Your task to perform on an android device: Go to Android settings Image 0: 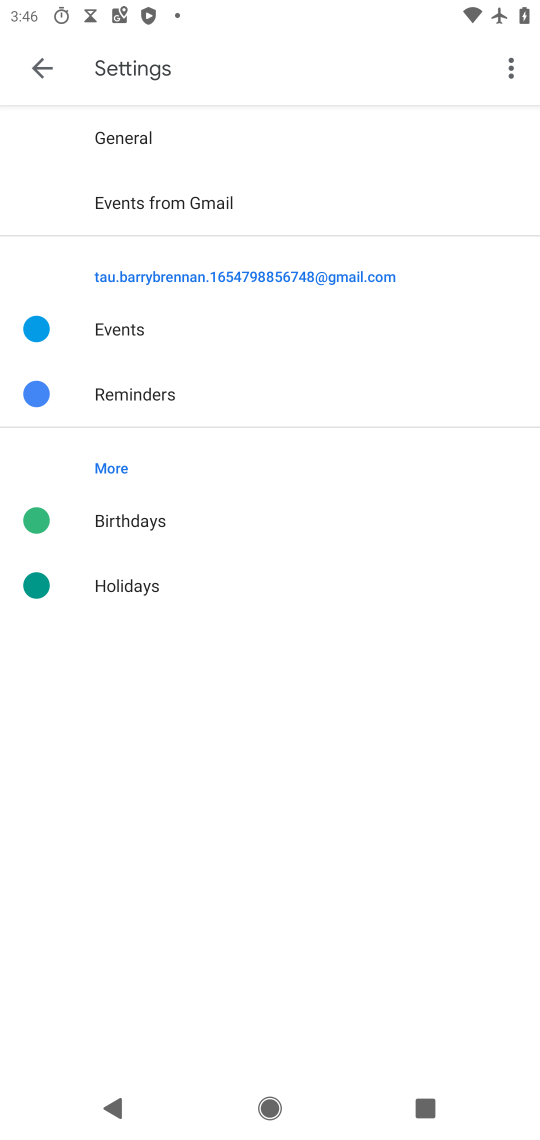
Step 0: press home button
Your task to perform on an android device: Go to Android settings Image 1: 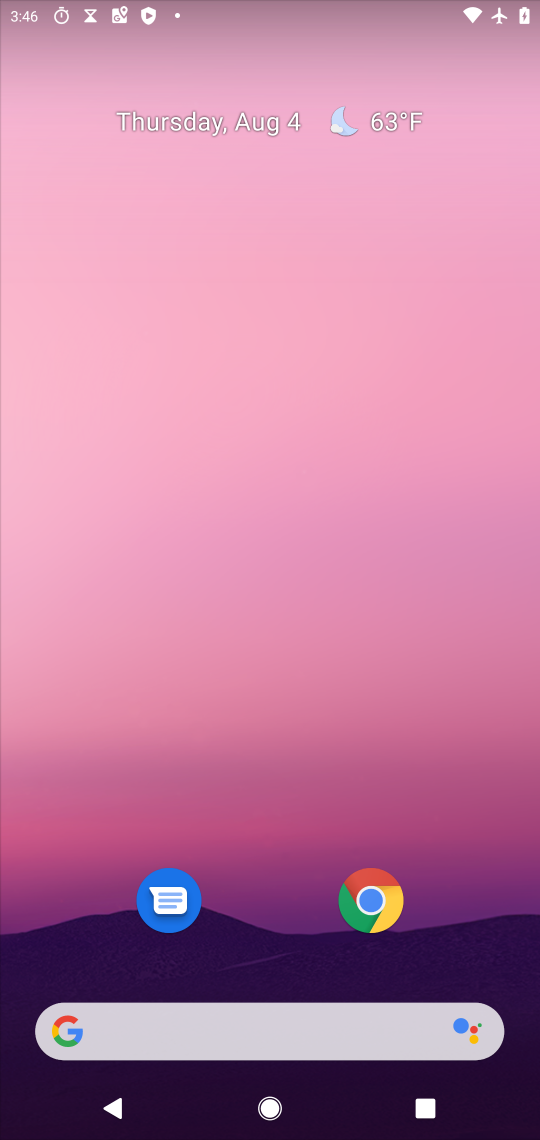
Step 1: drag from (484, 925) to (289, 45)
Your task to perform on an android device: Go to Android settings Image 2: 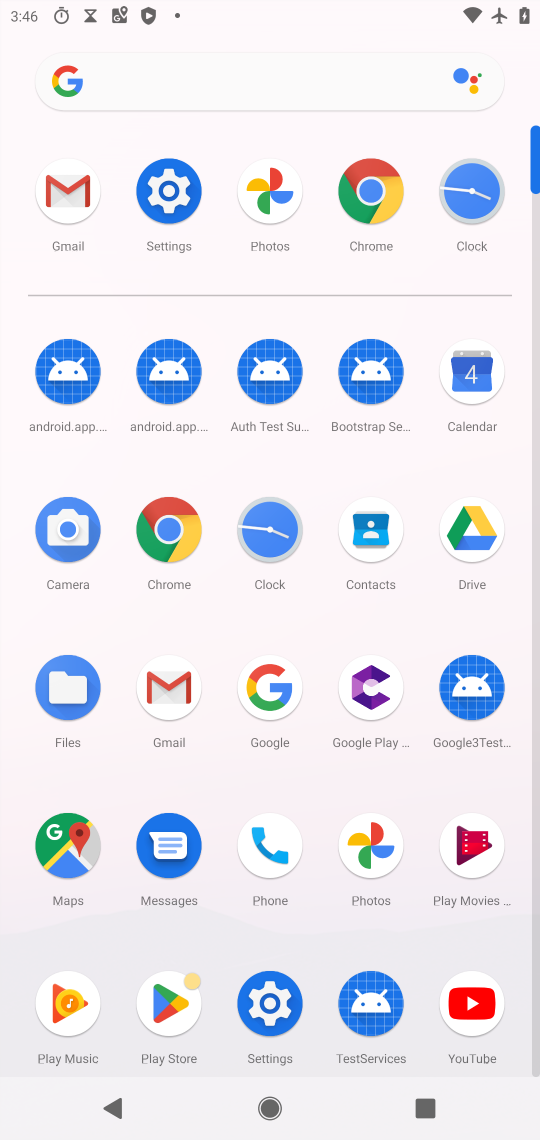
Step 2: click (175, 244)
Your task to perform on an android device: Go to Android settings Image 3: 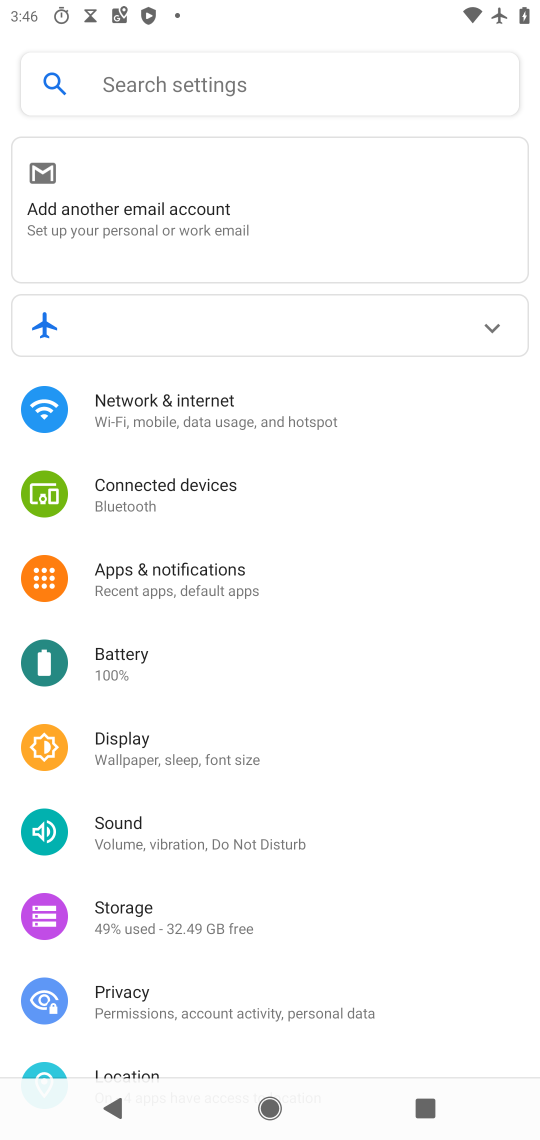
Step 3: task complete